Your task to perform on an android device: Turn off the flashlight Image 0: 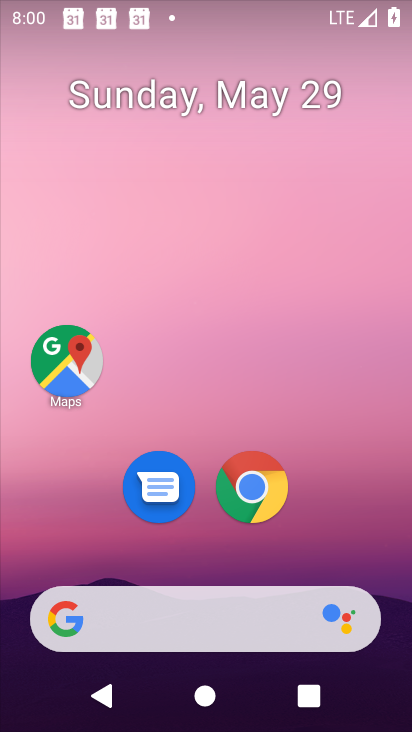
Step 0: drag from (175, 12) to (256, 593)
Your task to perform on an android device: Turn off the flashlight Image 1: 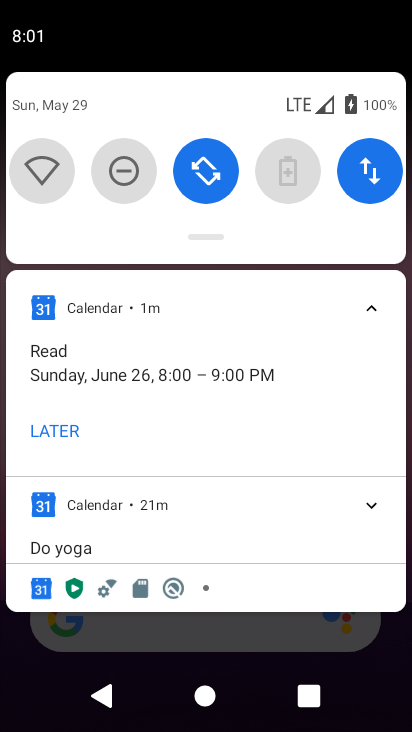
Step 1: task complete